Your task to perform on an android device: change notification settings in the gmail app Image 0: 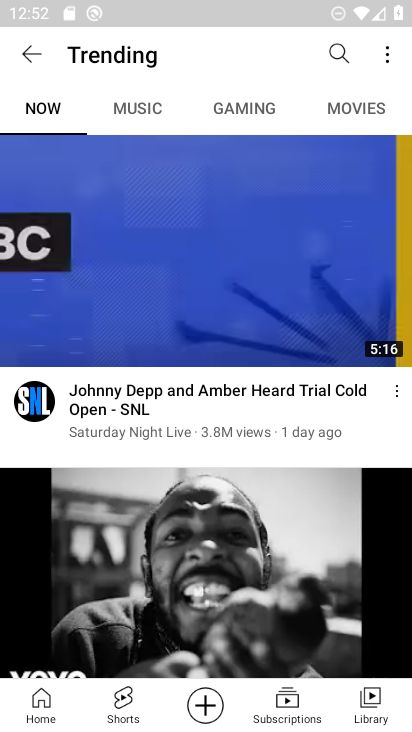
Step 0: press home button
Your task to perform on an android device: change notification settings in the gmail app Image 1: 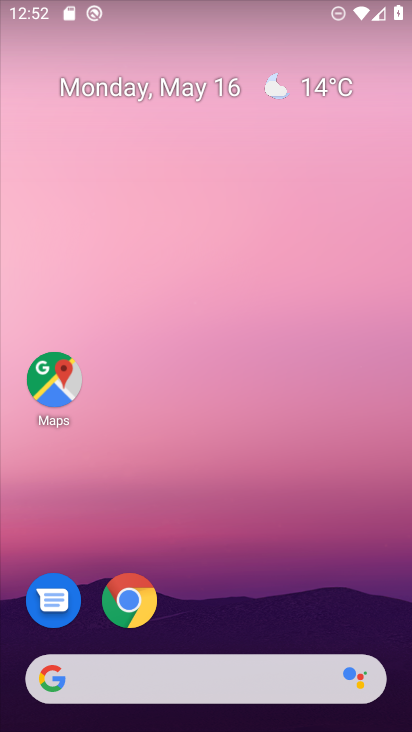
Step 1: drag from (221, 622) to (232, 66)
Your task to perform on an android device: change notification settings in the gmail app Image 2: 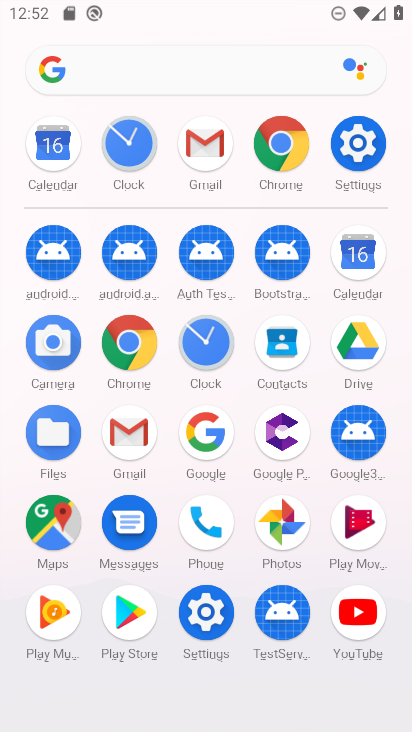
Step 2: click (129, 423)
Your task to perform on an android device: change notification settings in the gmail app Image 3: 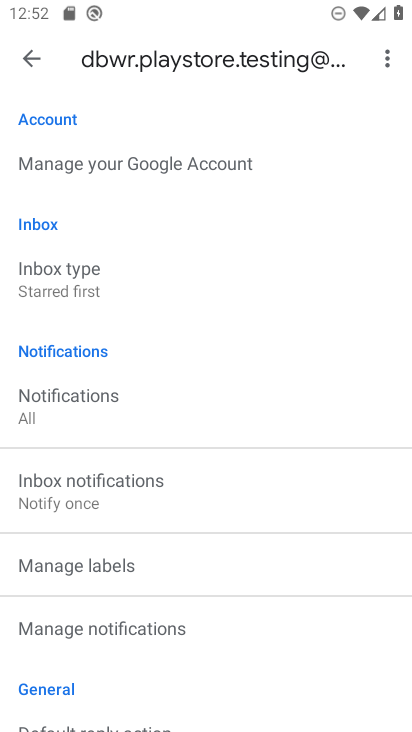
Step 3: click (29, 54)
Your task to perform on an android device: change notification settings in the gmail app Image 4: 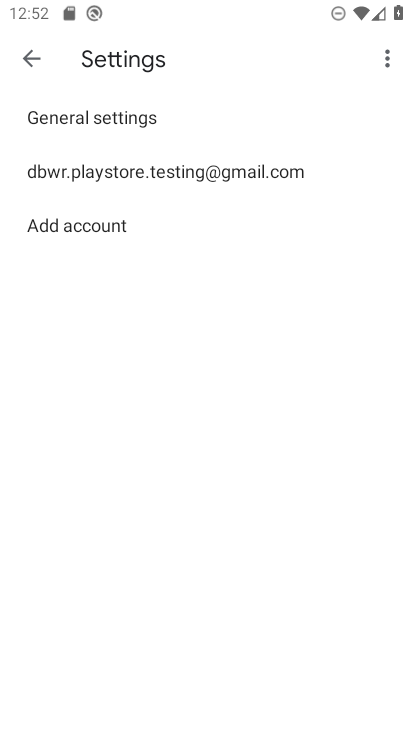
Step 4: click (164, 109)
Your task to perform on an android device: change notification settings in the gmail app Image 5: 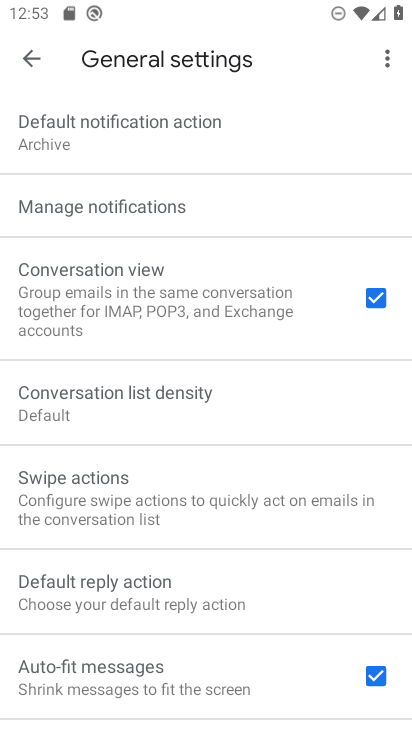
Step 5: click (192, 204)
Your task to perform on an android device: change notification settings in the gmail app Image 6: 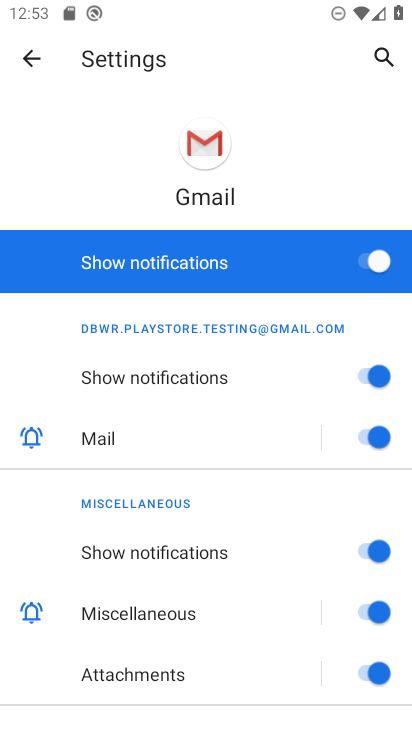
Step 6: click (366, 255)
Your task to perform on an android device: change notification settings in the gmail app Image 7: 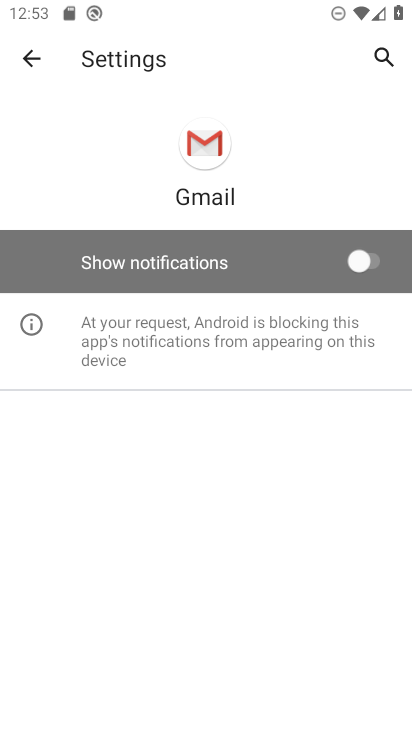
Step 7: task complete